Your task to perform on an android device: Open Chrome and go to the settings page Image 0: 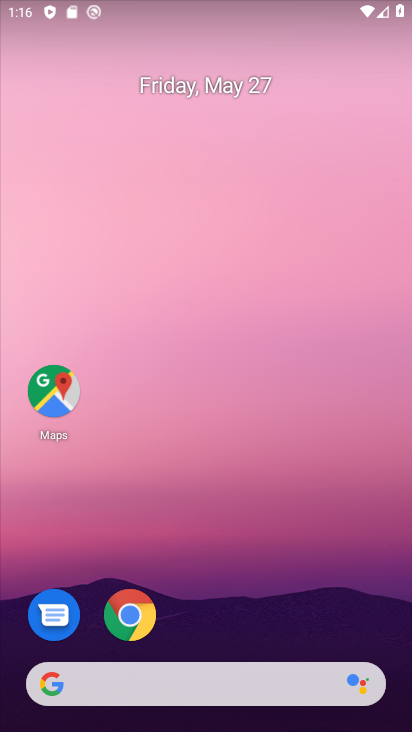
Step 0: click (139, 615)
Your task to perform on an android device: Open Chrome and go to the settings page Image 1: 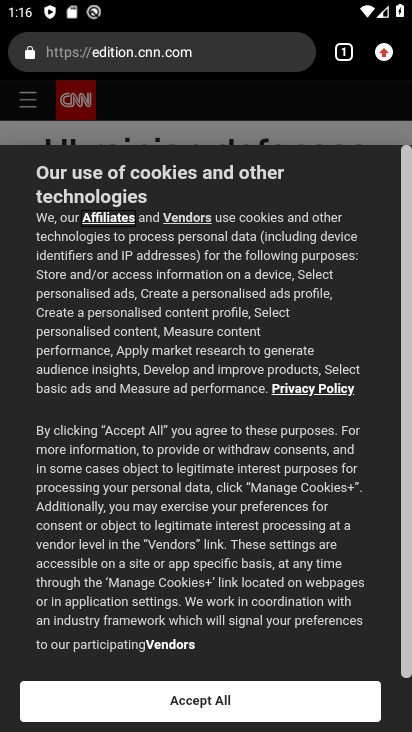
Step 1: press home button
Your task to perform on an android device: Open Chrome and go to the settings page Image 2: 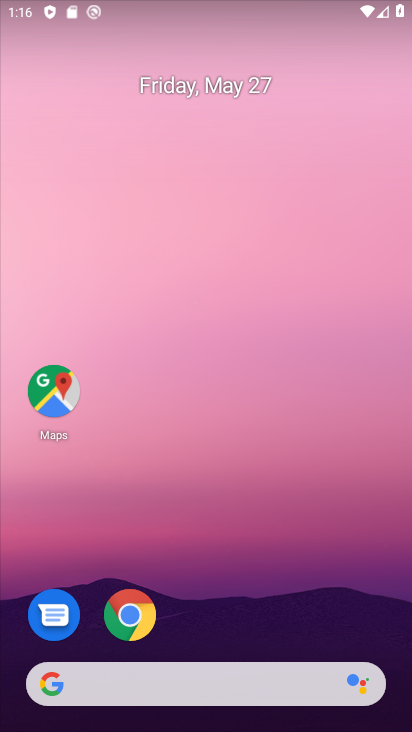
Step 2: click (126, 618)
Your task to perform on an android device: Open Chrome and go to the settings page Image 3: 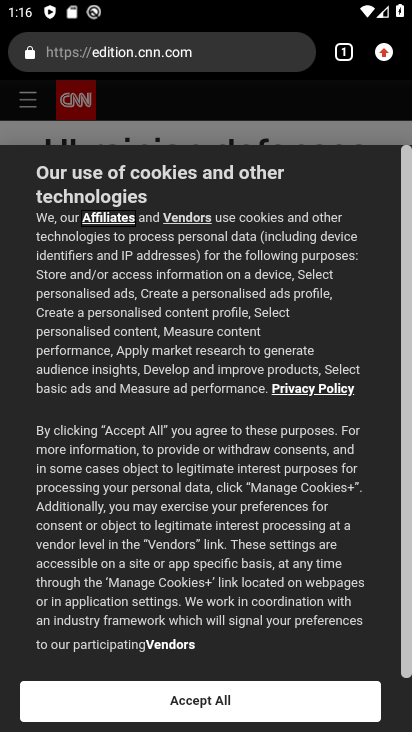
Step 3: click (347, 60)
Your task to perform on an android device: Open Chrome and go to the settings page Image 4: 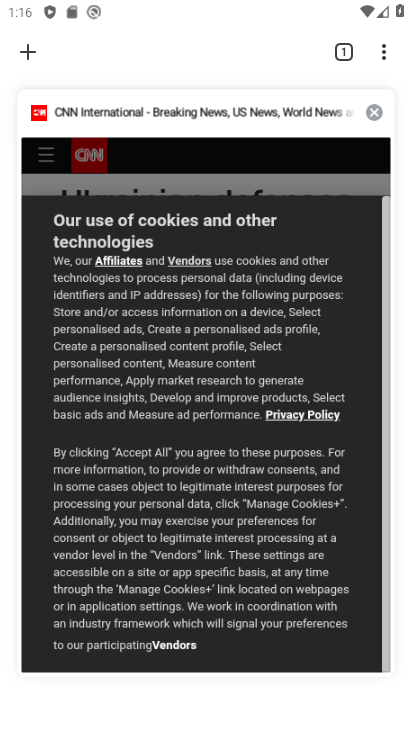
Step 4: click (377, 50)
Your task to perform on an android device: Open Chrome and go to the settings page Image 5: 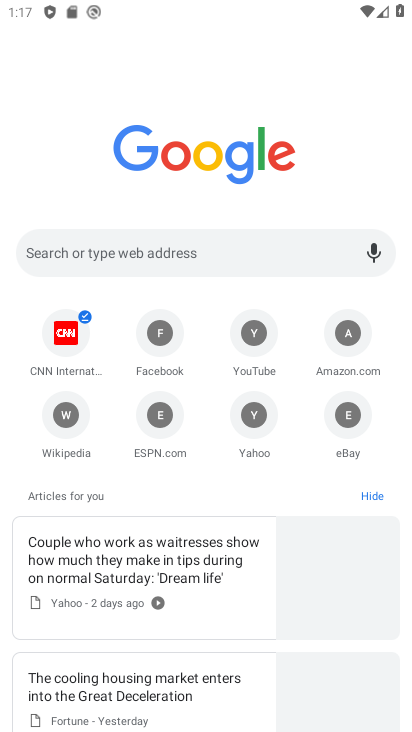
Step 5: click (381, 53)
Your task to perform on an android device: Open Chrome and go to the settings page Image 6: 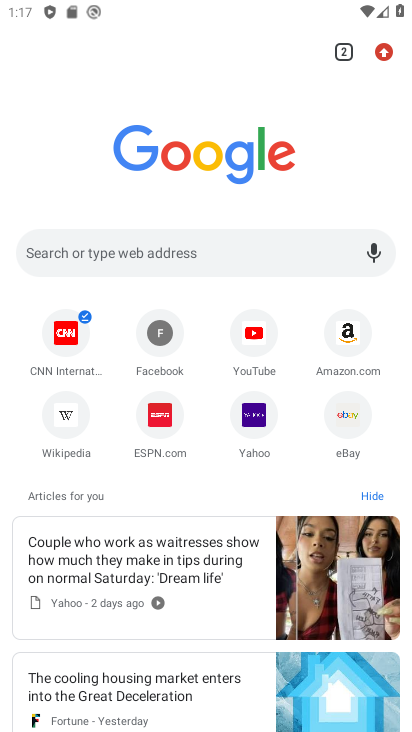
Step 6: click (381, 53)
Your task to perform on an android device: Open Chrome and go to the settings page Image 7: 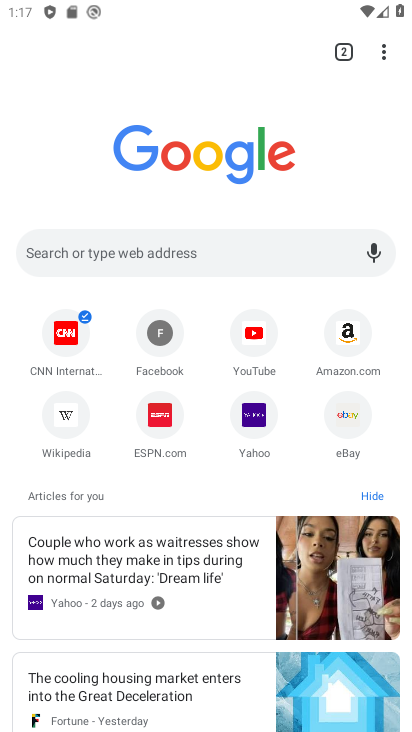
Step 7: task complete